Your task to perform on an android device: toggle location history Image 0: 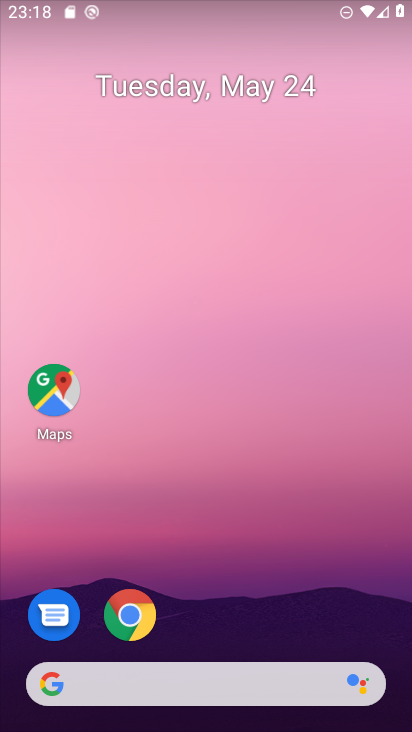
Step 0: drag from (265, 679) to (342, 38)
Your task to perform on an android device: toggle location history Image 1: 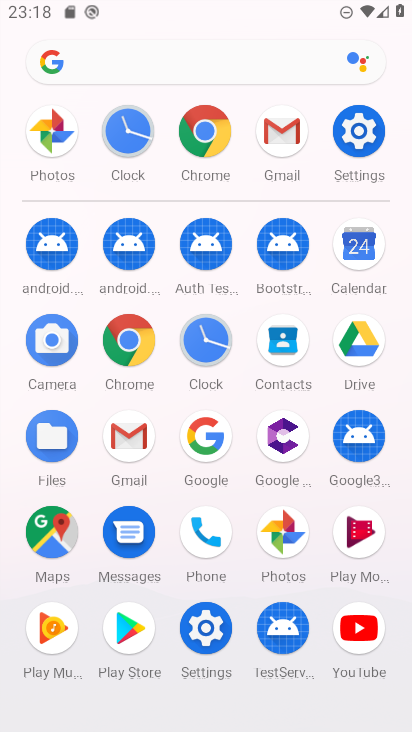
Step 1: click (360, 121)
Your task to perform on an android device: toggle location history Image 2: 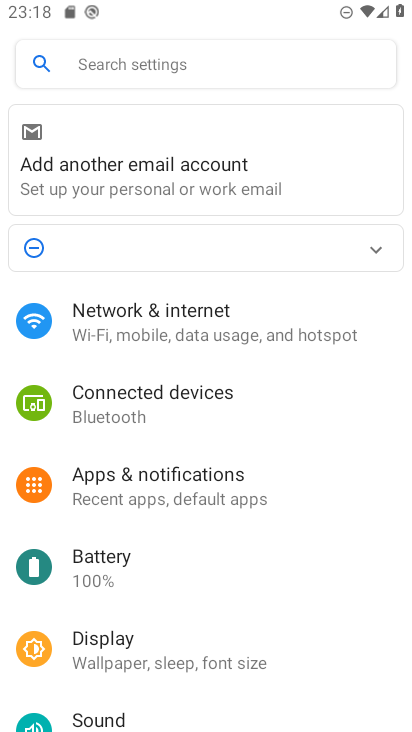
Step 2: click (159, 57)
Your task to perform on an android device: toggle location history Image 3: 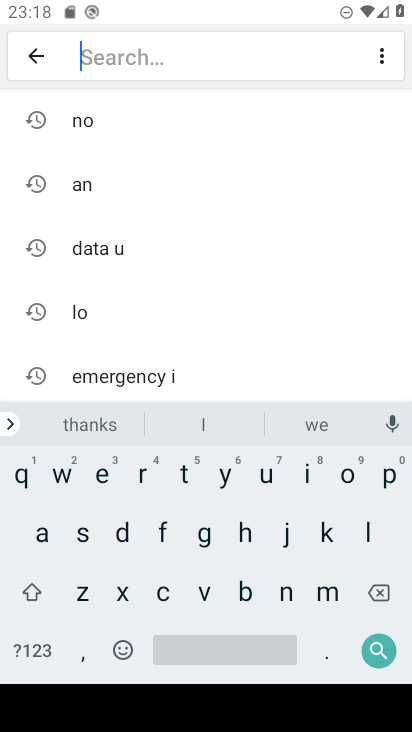
Step 3: click (108, 315)
Your task to perform on an android device: toggle location history Image 4: 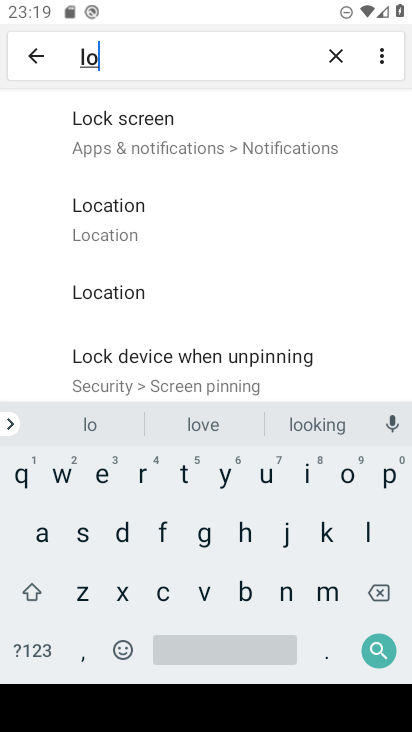
Step 4: click (154, 236)
Your task to perform on an android device: toggle location history Image 5: 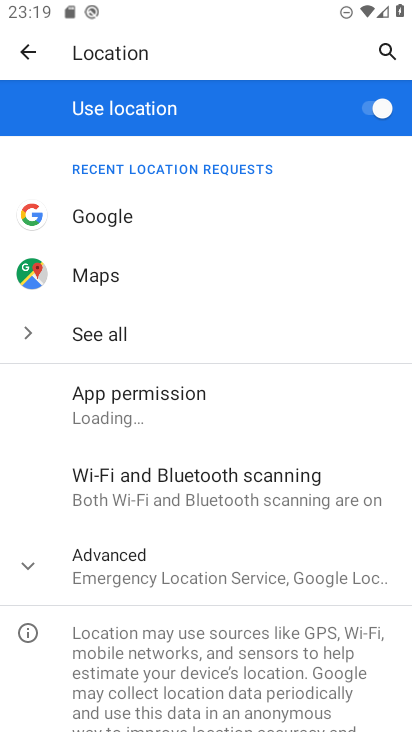
Step 5: click (16, 574)
Your task to perform on an android device: toggle location history Image 6: 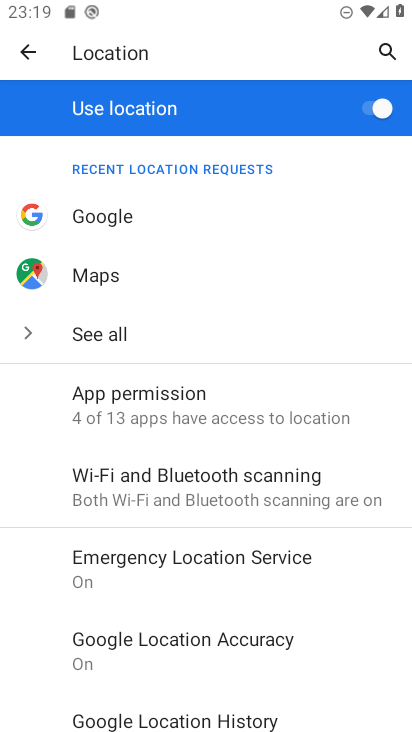
Step 6: drag from (173, 644) to (261, 184)
Your task to perform on an android device: toggle location history Image 7: 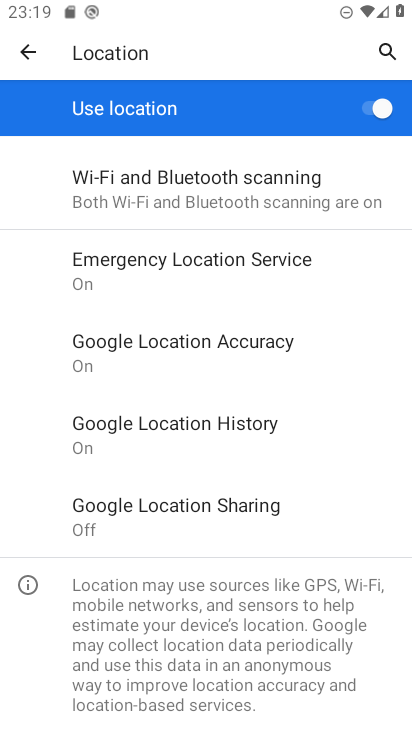
Step 7: click (202, 414)
Your task to perform on an android device: toggle location history Image 8: 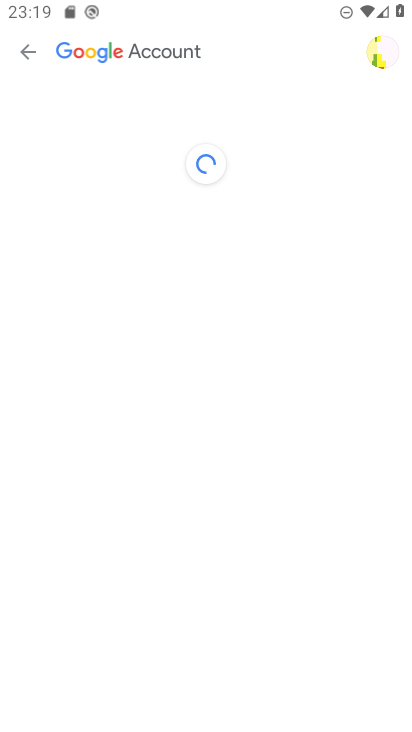
Step 8: task complete